Your task to perform on an android device: search for starred emails in the gmail app Image 0: 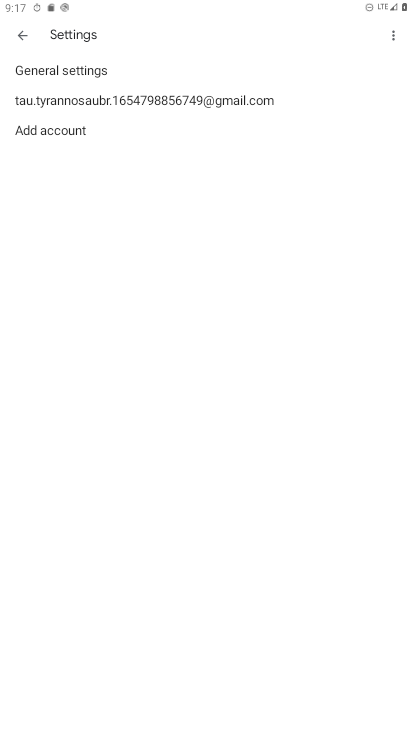
Step 0: press home button
Your task to perform on an android device: search for starred emails in the gmail app Image 1: 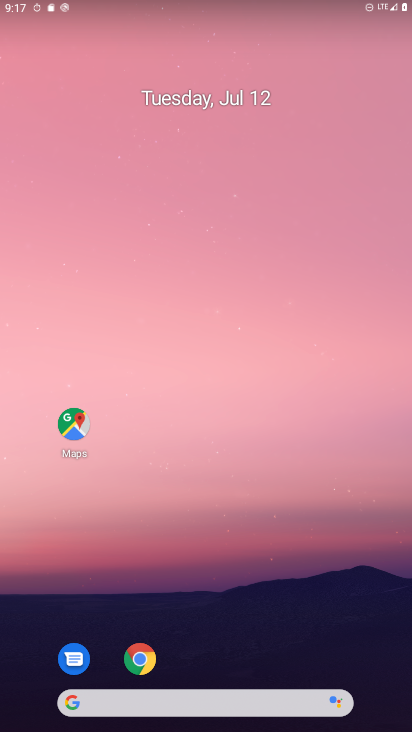
Step 1: drag from (398, 683) to (250, 0)
Your task to perform on an android device: search for starred emails in the gmail app Image 2: 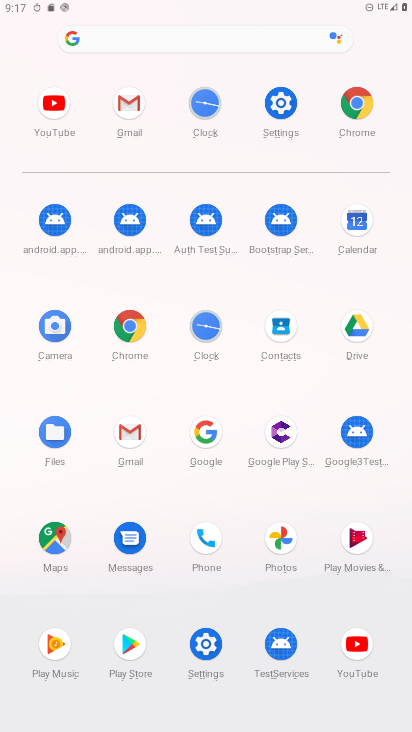
Step 2: click (144, 433)
Your task to perform on an android device: search for starred emails in the gmail app Image 3: 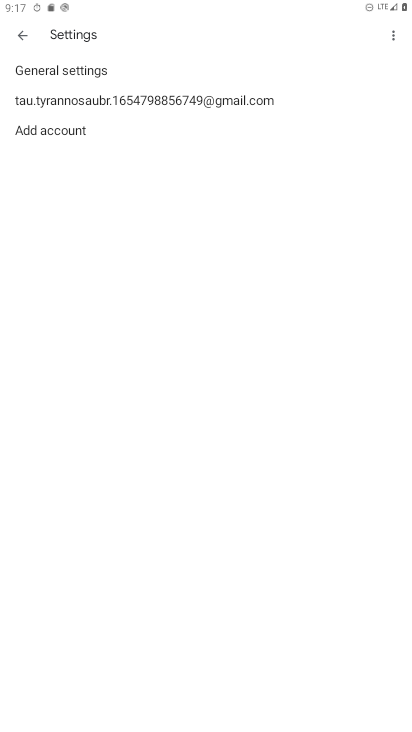
Step 3: press back button
Your task to perform on an android device: search for starred emails in the gmail app Image 4: 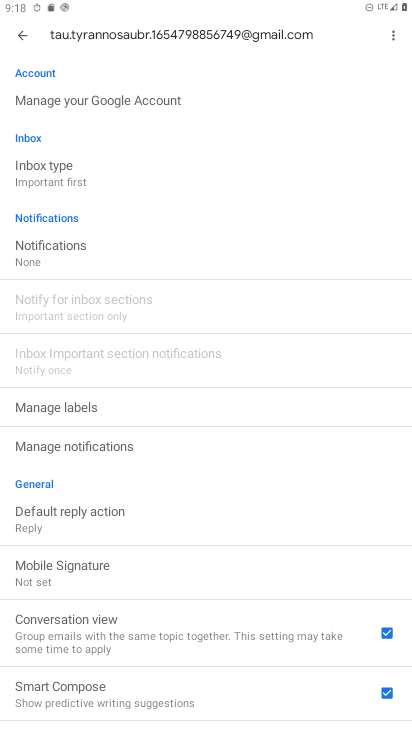
Step 4: press back button
Your task to perform on an android device: search for starred emails in the gmail app Image 5: 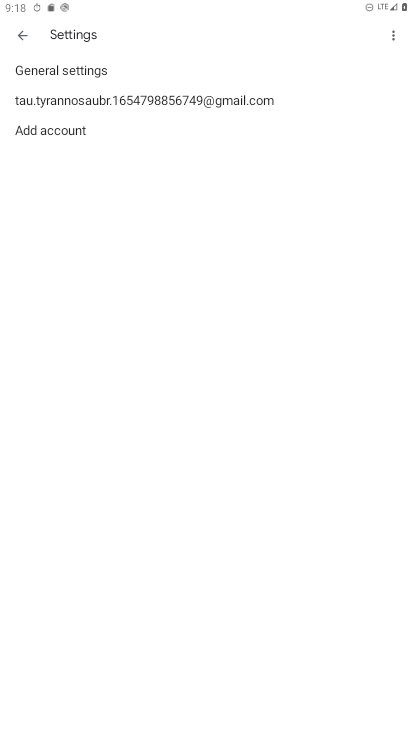
Step 5: press back button
Your task to perform on an android device: search for starred emails in the gmail app Image 6: 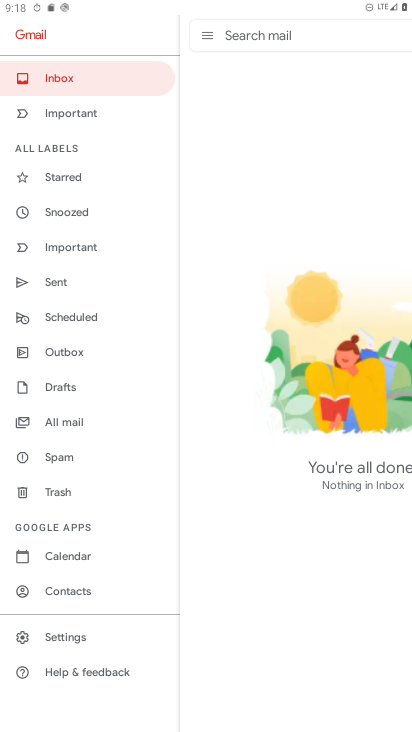
Step 6: click (66, 183)
Your task to perform on an android device: search for starred emails in the gmail app Image 7: 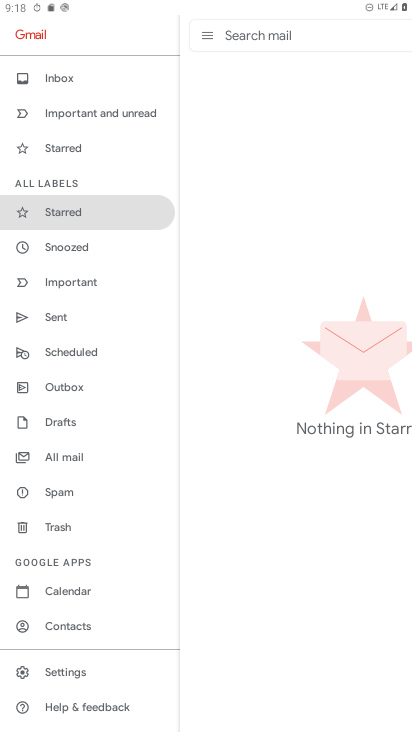
Step 7: task complete